Your task to perform on an android device: open chrome privacy settings Image 0: 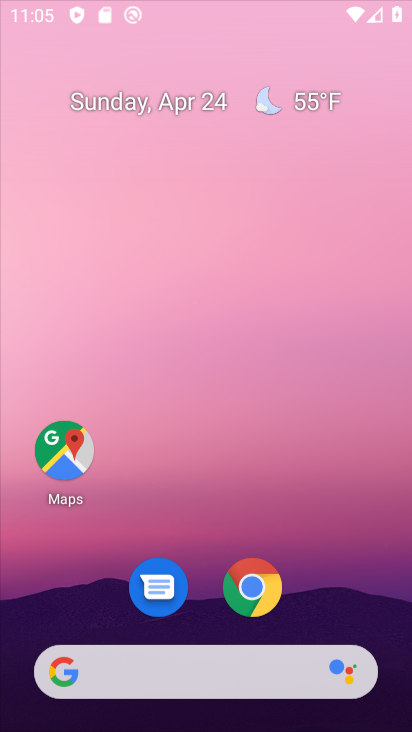
Step 0: drag from (310, 589) to (342, 9)
Your task to perform on an android device: open chrome privacy settings Image 1: 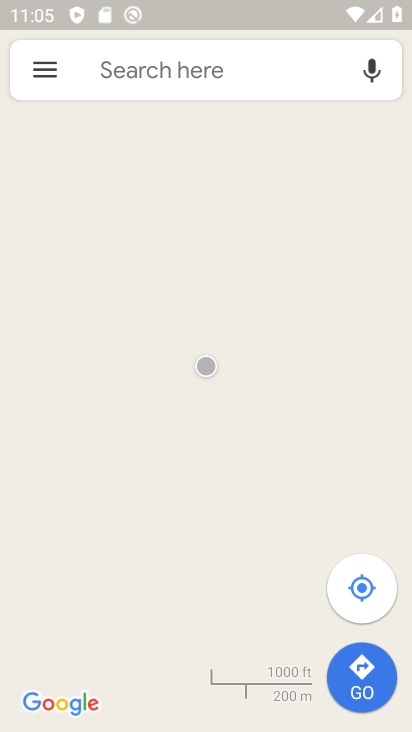
Step 1: press home button
Your task to perform on an android device: open chrome privacy settings Image 2: 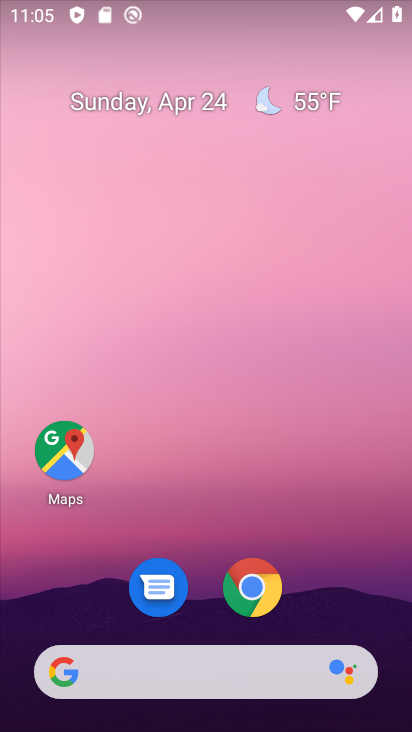
Step 2: drag from (347, 578) to (392, 27)
Your task to perform on an android device: open chrome privacy settings Image 3: 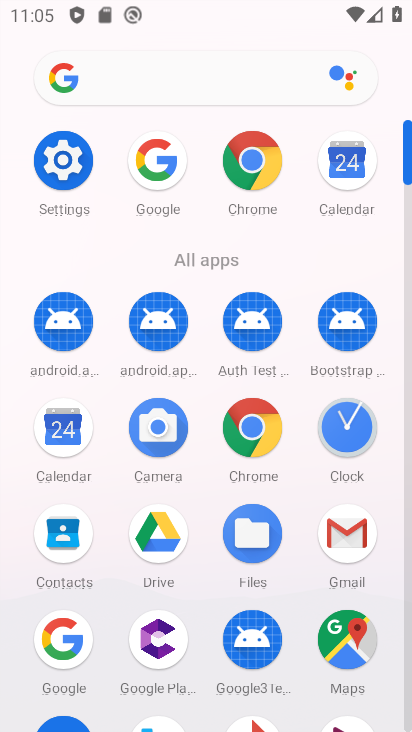
Step 3: click (245, 153)
Your task to perform on an android device: open chrome privacy settings Image 4: 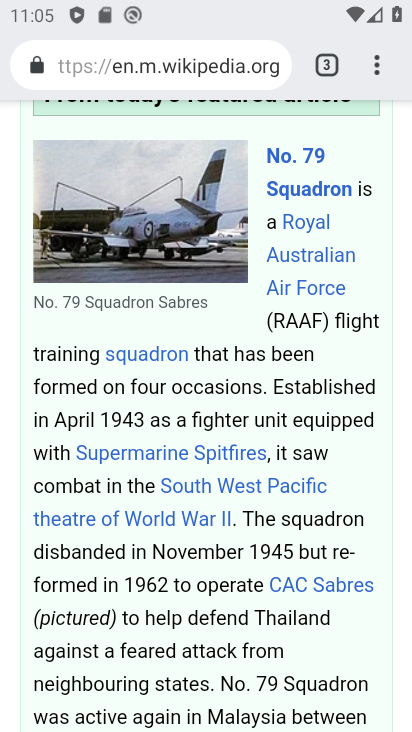
Step 4: drag from (355, 66) to (160, 618)
Your task to perform on an android device: open chrome privacy settings Image 5: 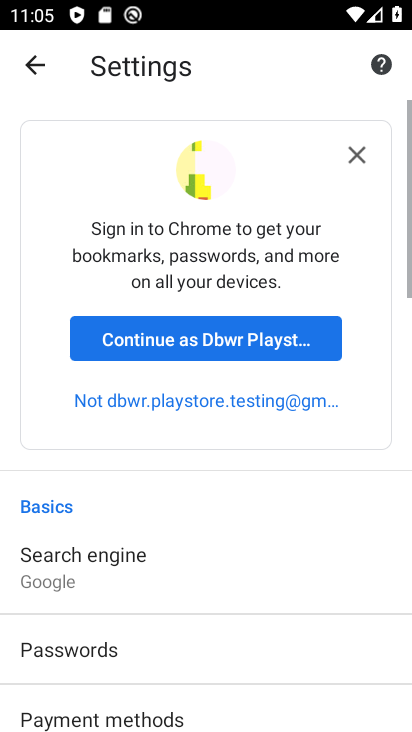
Step 5: drag from (167, 640) to (278, 229)
Your task to perform on an android device: open chrome privacy settings Image 6: 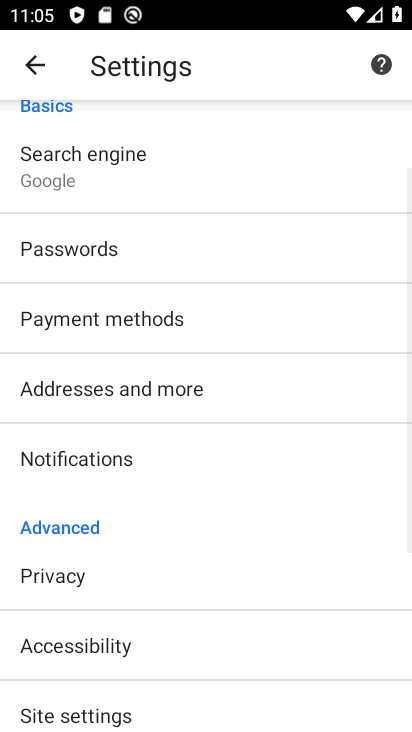
Step 6: drag from (243, 622) to (203, 212)
Your task to perform on an android device: open chrome privacy settings Image 7: 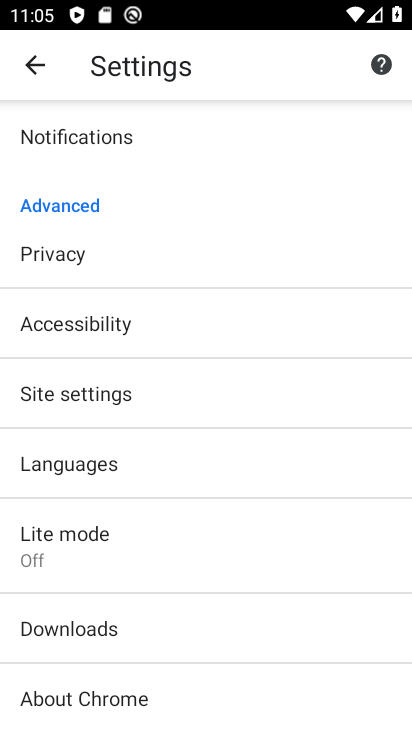
Step 7: click (97, 261)
Your task to perform on an android device: open chrome privacy settings Image 8: 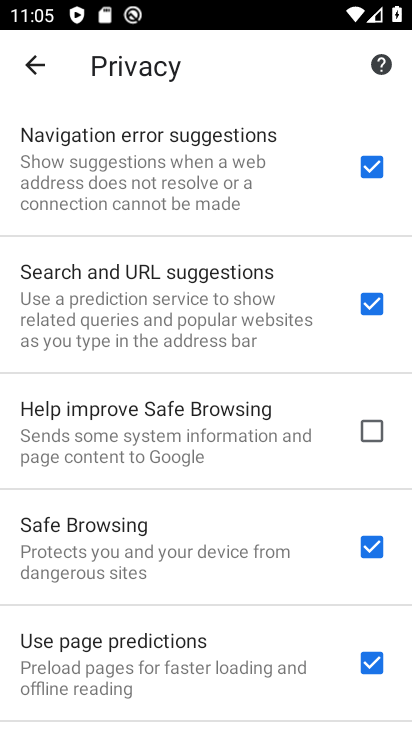
Step 8: task complete